Your task to perform on an android device: make emails show in primary in the gmail app Image 0: 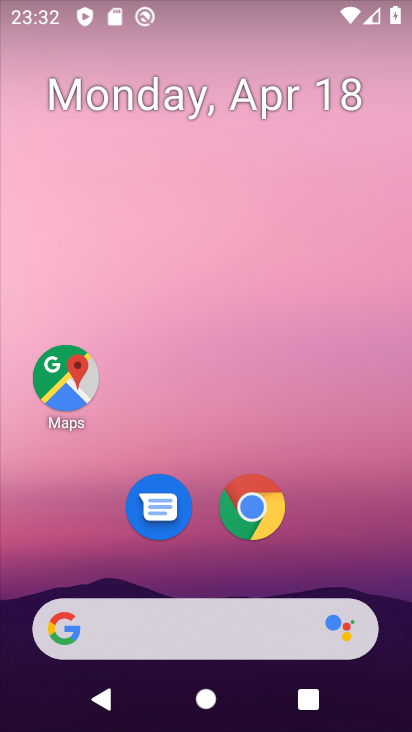
Step 0: drag from (345, 501) to (373, 111)
Your task to perform on an android device: make emails show in primary in the gmail app Image 1: 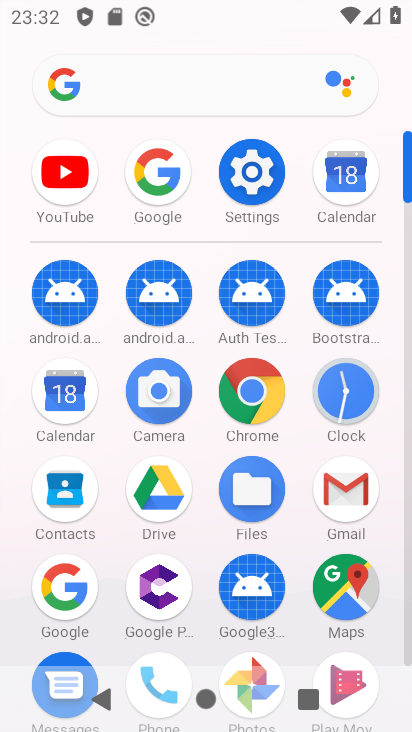
Step 1: click (336, 485)
Your task to perform on an android device: make emails show in primary in the gmail app Image 2: 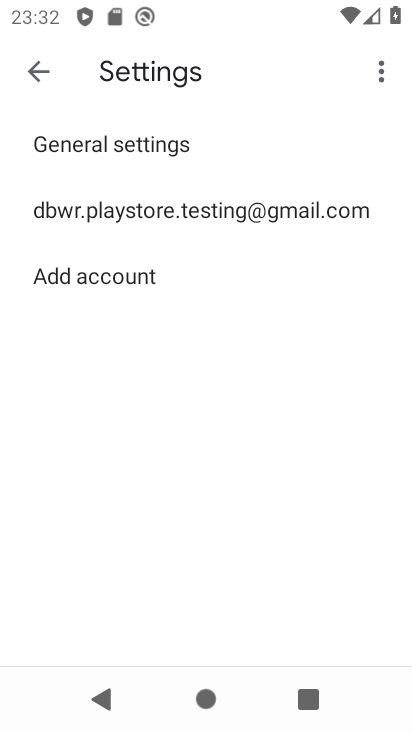
Step 2: click (167, 211)
Your task to perform on an android device: make emails show in primary in the gmail app Image 3: 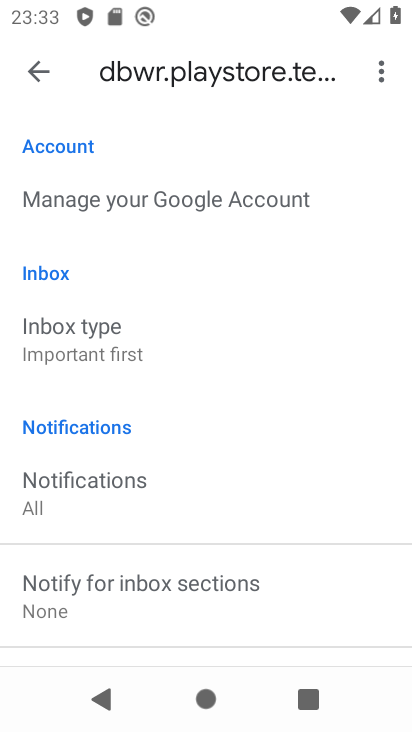
Step 3: drag from (242, 482) to (258, 263)
Your task to perform on an android device: make emails show in primary in the gmail app Image 4: 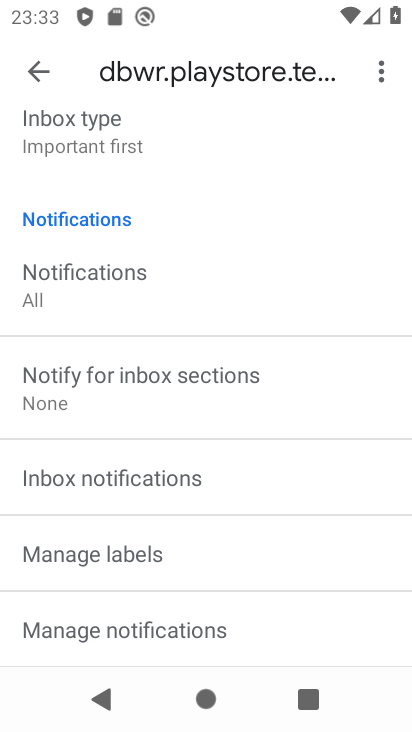
Step 4: drag from (216, 232) to (173, 541)
Your task to perform on an android device: make emails show in primary in the gmail app Image 5: 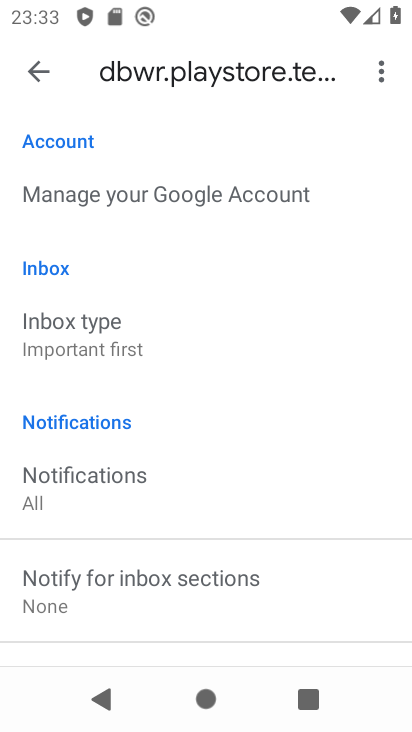
Step 5: click (109, 331)
Your task to perform on an android device: make emails show in primary in the gmail app Image 6: 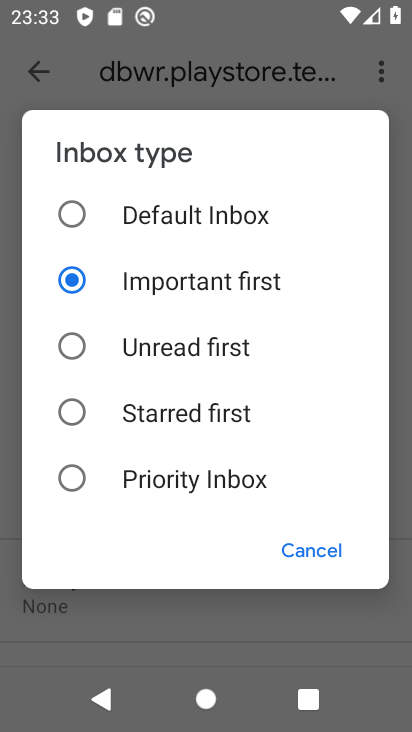
Step 6: click (155, 207)
Your task to perform on an android device: make emails show in primary in the gmail app Image 7: 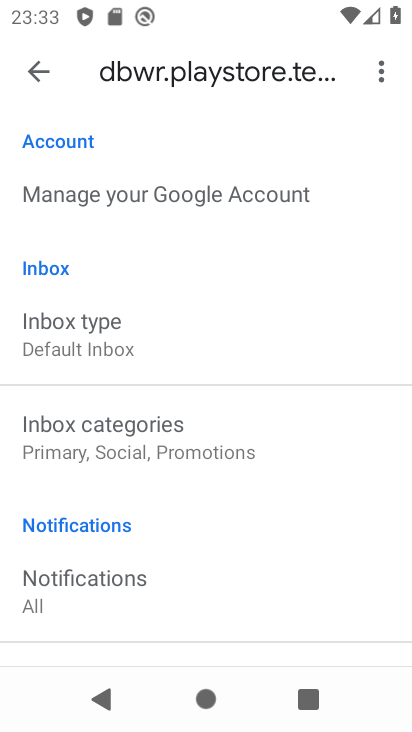
Step 7: click (167, 433)
Your task to perform on an android device: make emails show in primary in the gmail app Image 8: 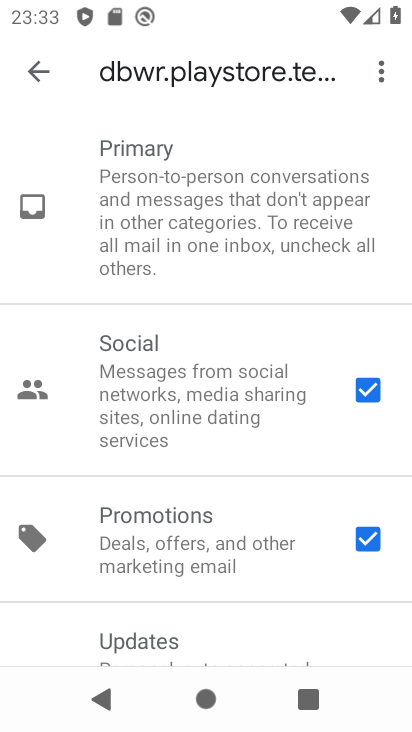
Step 8: click (357, 387)
Your task to perform on an android device: make emails show in primary in the gmail app Image 9: 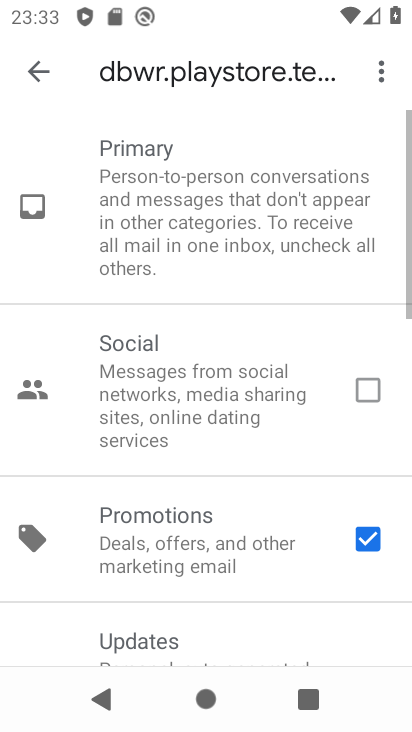
Step 9: click (363, 539)
Your task to perform on an android device: make emails show in primary in the gmail app Image 10: 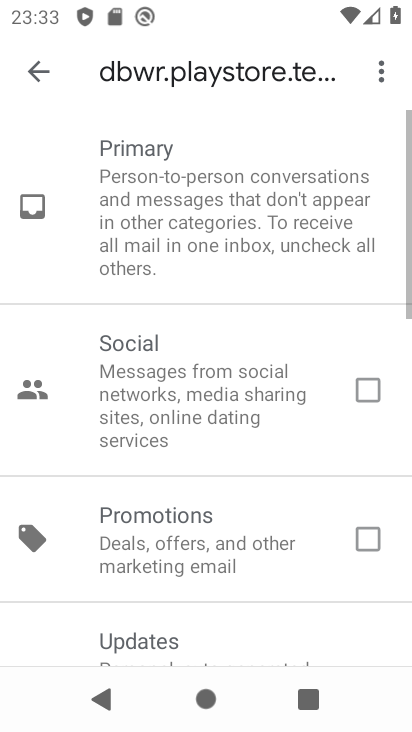
Step 10: task complete